Your task to perform on an android device: open wifi settings Image 0: 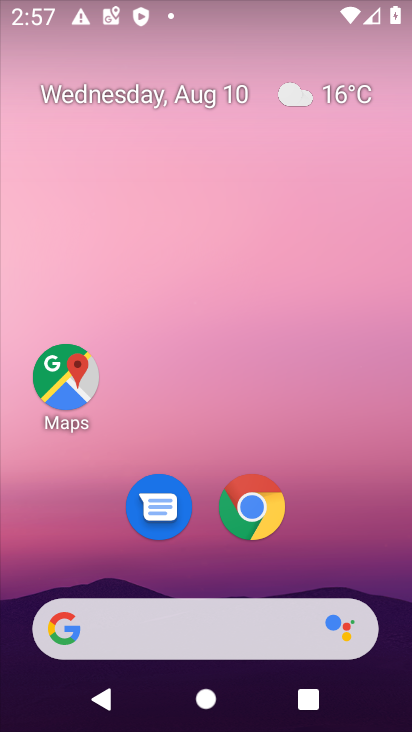
Step 0: drag from (317, 532) to (311, 0)
Your task to perform on an android device: open wifi settings Image 1: 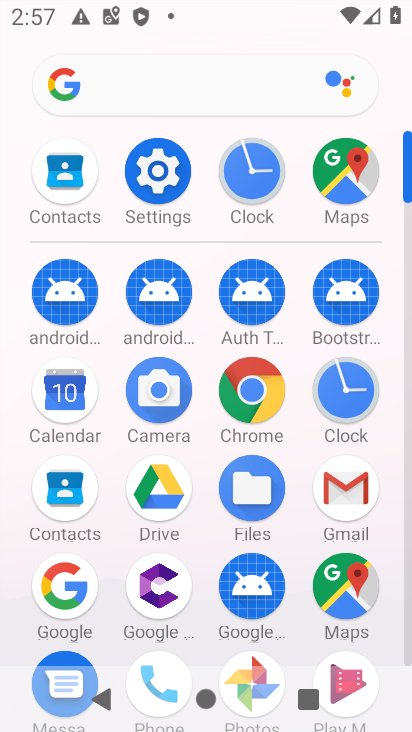
Step 1: click (147, 176)
Your task to perform on an android device: open wifi settings Image 2: 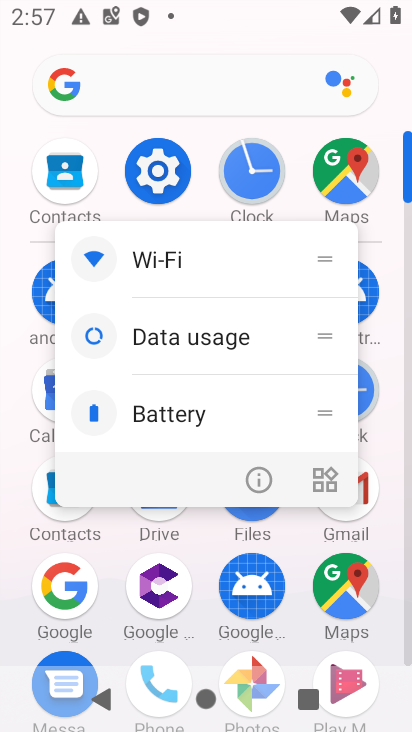
Step 2: click (151, 175)
Your task to perform on an android device: open wifi settings Image 3: 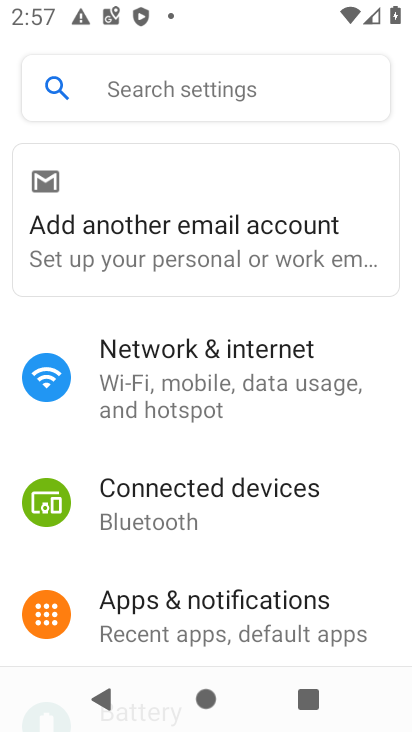
Step 3: click (177, 378)
Your task to perform on an android device: open wifi settings Image 4: 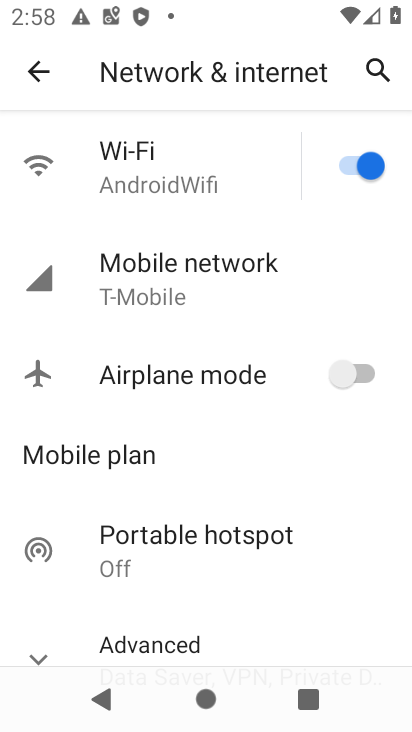
Step 4: click (193, 174)
Your task to perform on an android device: open wifi settings Image 5: 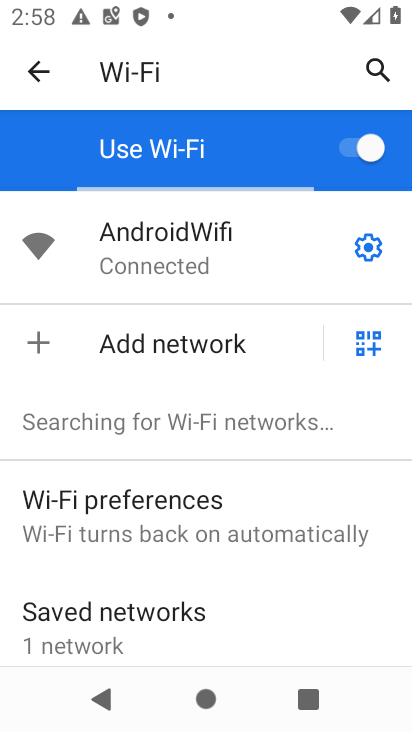
Step 5: click (366, 247)
Your task to perform on an android device: open wifi settings Image 6: 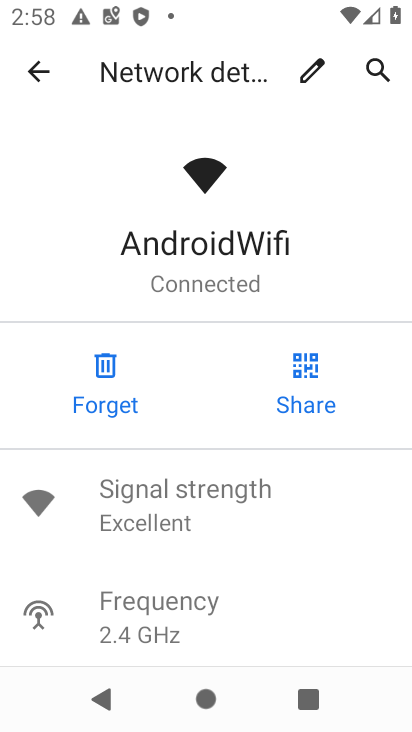
Step 6: task complete